Your task to perform on an android device: open chrome and create a bookmark for the current page Image 0: 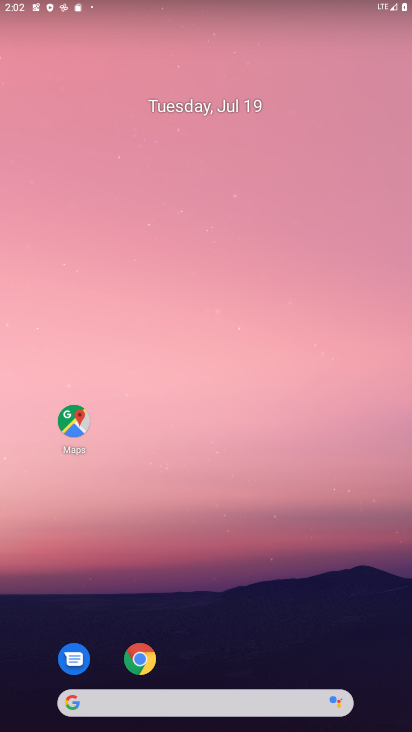
Step 0: drag from (289, 680) to (284, 148)
Your task to perform on an android device: open chrome and create a bookmark for the current page Image 1: 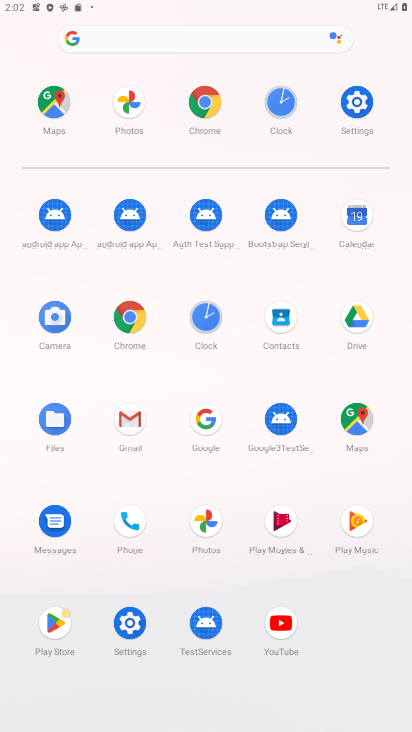
Step 1: click (213, 107)
Your task to perform on an android device: open chrome and create a bookmark for the current page Image 2: 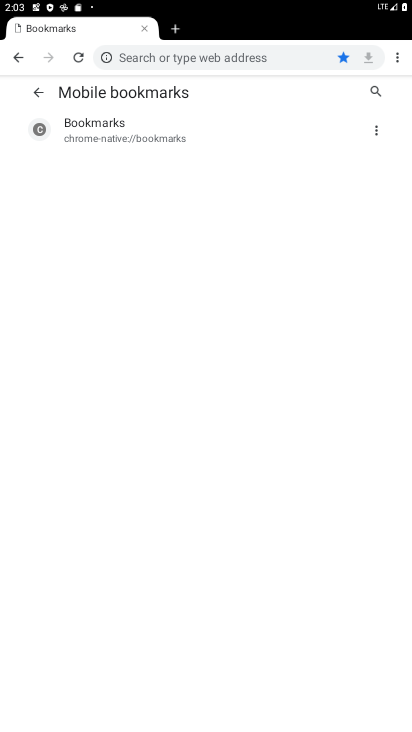
Step 2: click (6, 54)
Your task to perform on an android device: open chrome and create a bookmark for the current page Image 3: 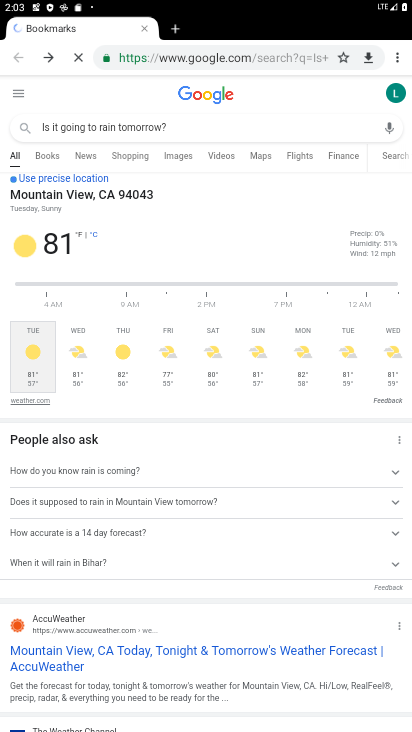
Step 3: click (346, 57)
Your task to perform on an android device: open chrome and create a bookmark for the current page Image 4: 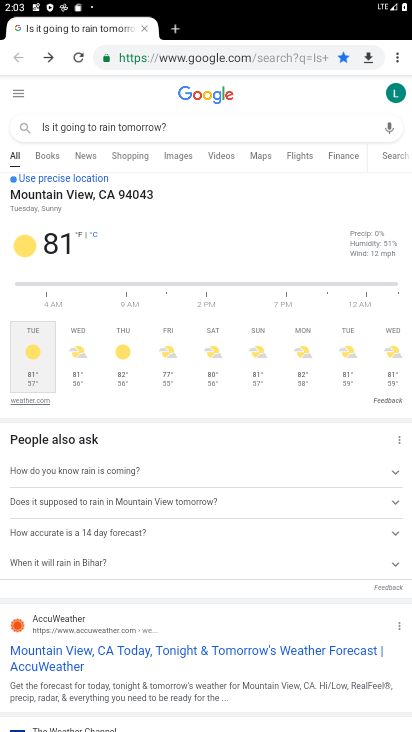
Step 4: task complete